Your task to perform on an android device: Go to Google Image 0: 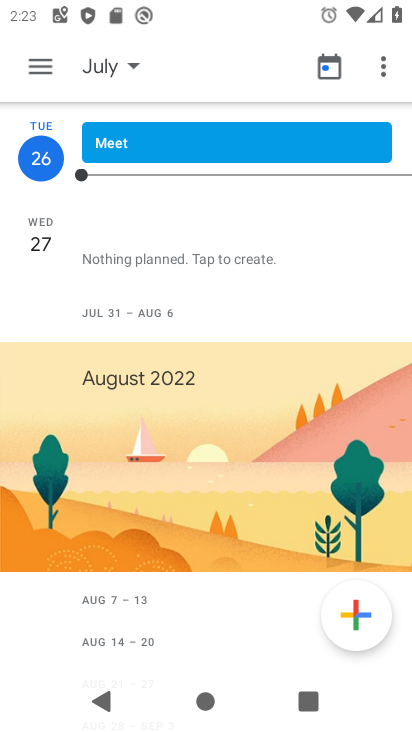
Step 0: press home button
Your task to perform on an android device: Go to Google Image 1: 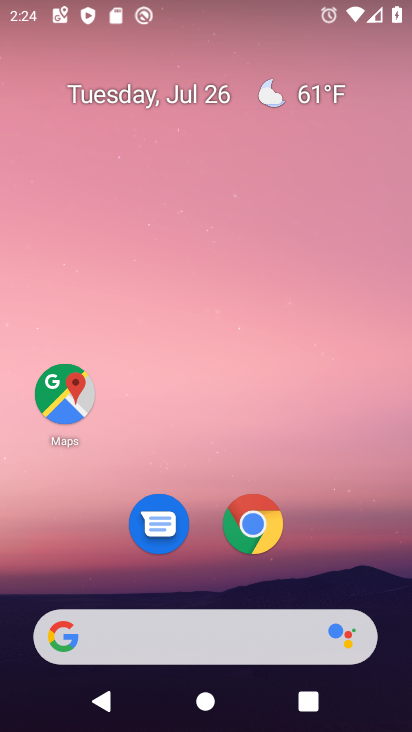
Step 1: drag from (192, 629) to (305, 210)
Your task to perform on an android device: Go to Google Image 2: 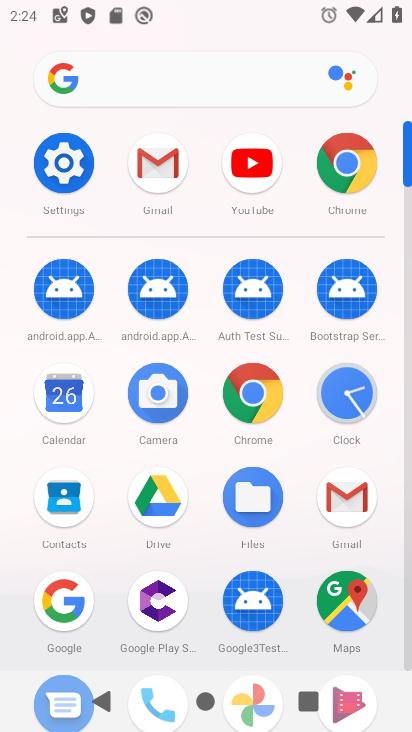
Step 2: drag from (198, 600) to (325, 158)
Your task to perform on an android device: Go to Google Image 3: 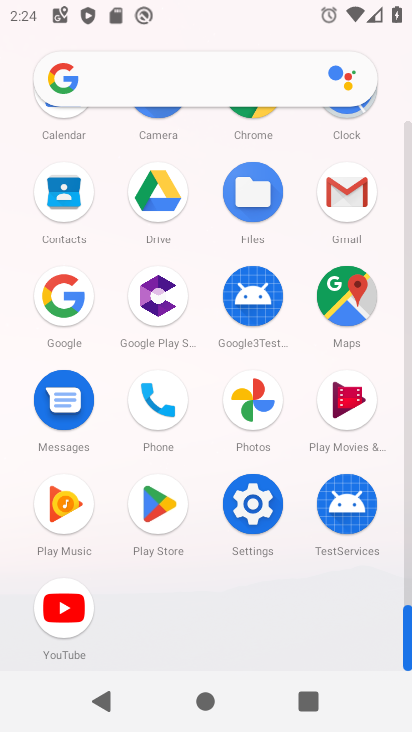
Step 3: click (57, 303)
Your task to perform on an android device: Go to Google Image 4: 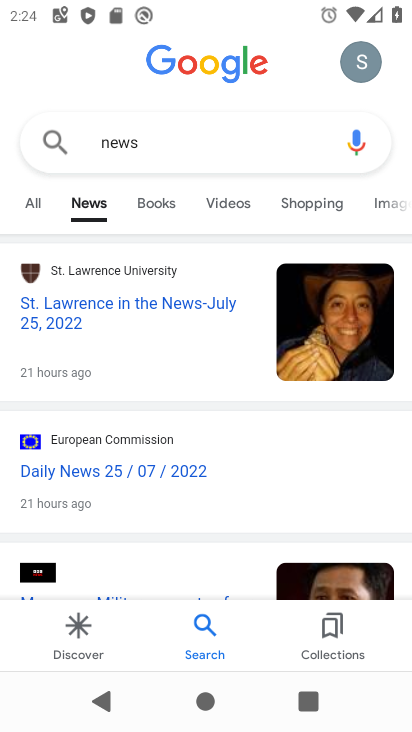
Step 4: task complete